Your task to perform on an android device: Open my contact list Image 0: 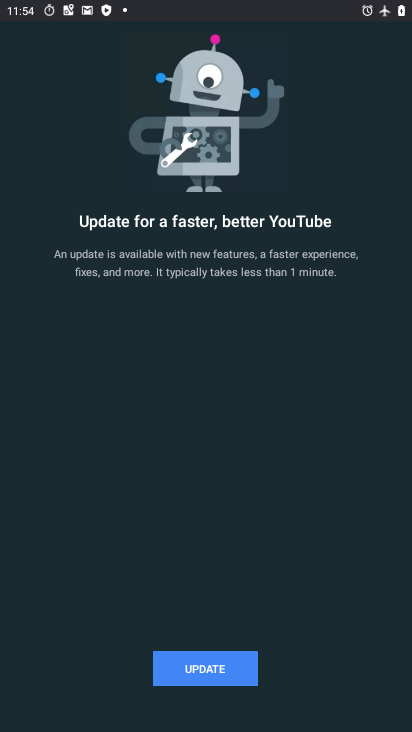
Step 0: press home button
Your task to perform on an android device: Open my contact list Image 1: 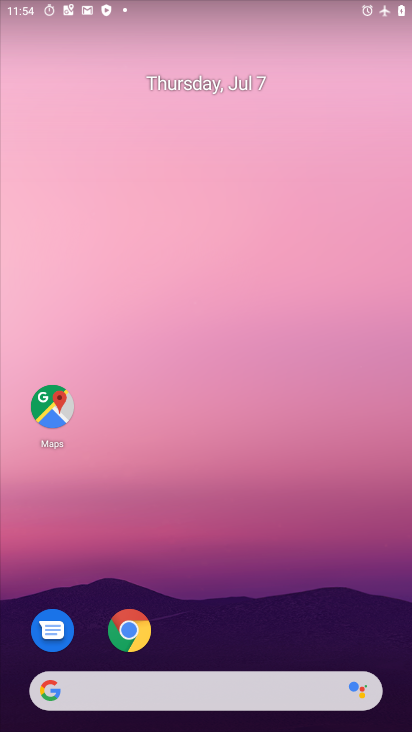
Step 1: drag from (235, 595) to (222, 211)
Your task to perform on an android device: Open my contact list Image 2: 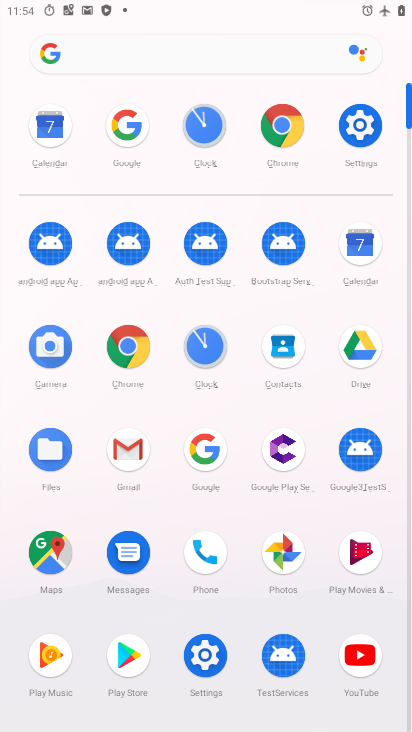
Step 2: click (292, 347)
Your task to perform on an android device: Open my contact list Image 3: 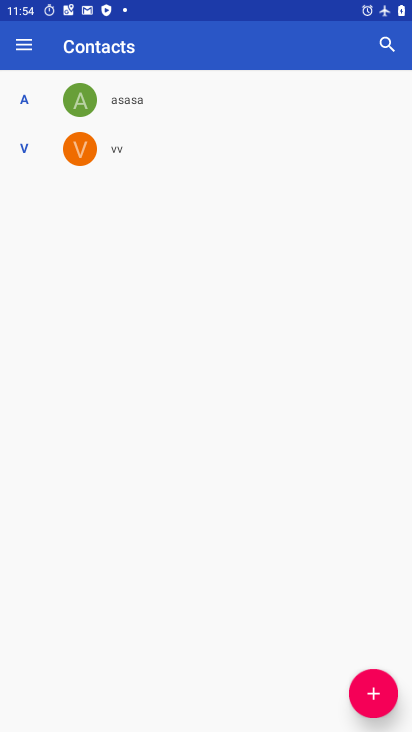
Step 3: task complete